Your task to perform on an android device: Go to Amazon Image 0: 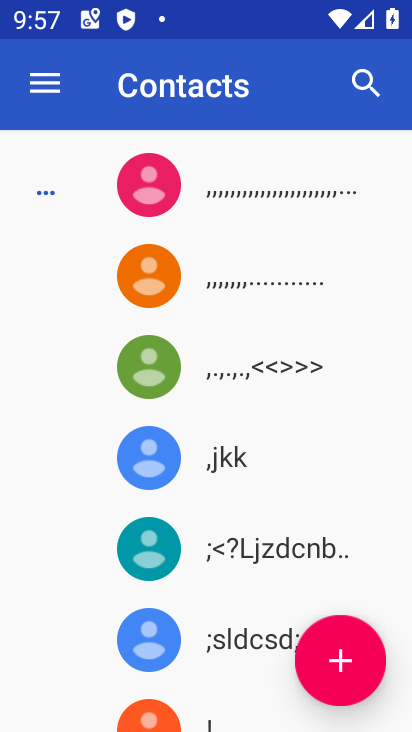
Step 0: press home button
Your task to perform on an android device: Go to Amazon Image 1: 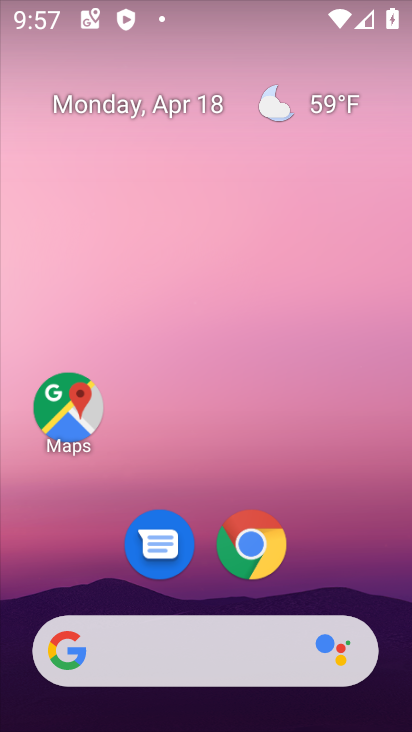
Step 1: drag from (301, 432) to (352, 139)
Your task to perform on an android device: Go to Amazon Image 2: 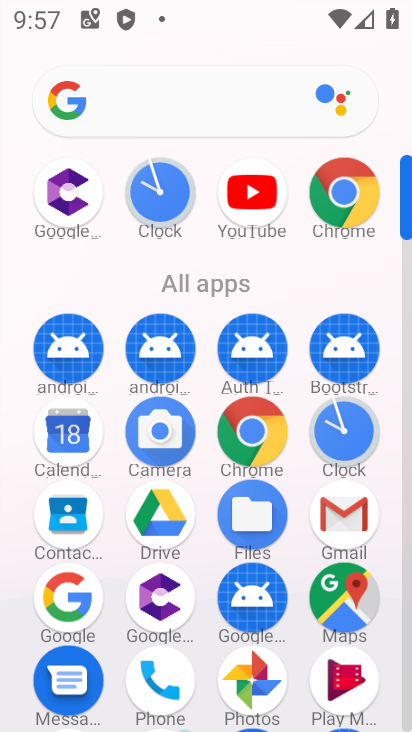
Step 2: click (227, 424)
Your task to perform on an android device: Go to Amazon Image 3: 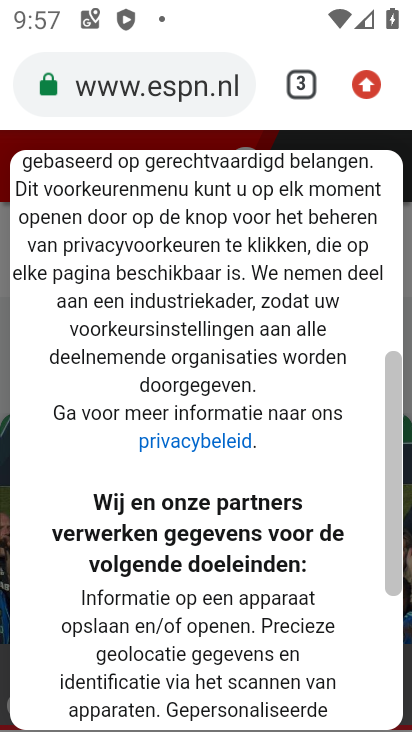
Step 3: click (388, 88)
Your task to perform on an android device: Go to Amazon Image 4: 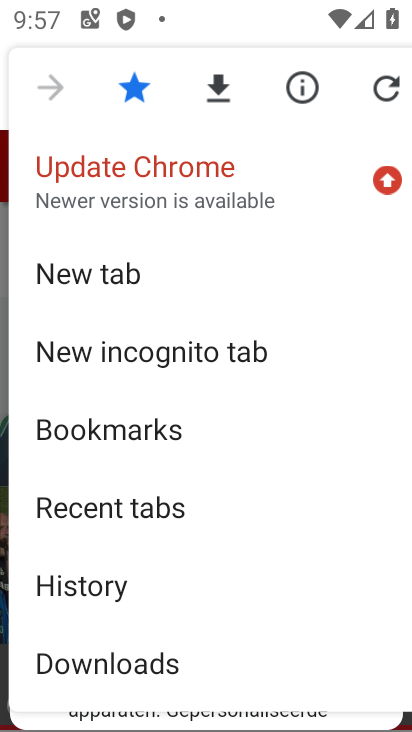
Step 4: click (135, 274)
Your task to perform on an android device: Go to Amazon Image 5: 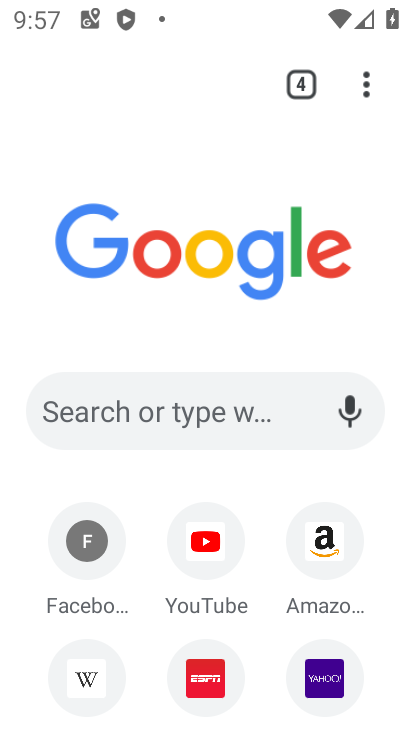
Step 5: click (314, 529)
Your task to perform on an android device: Go to Amazon Image 6: 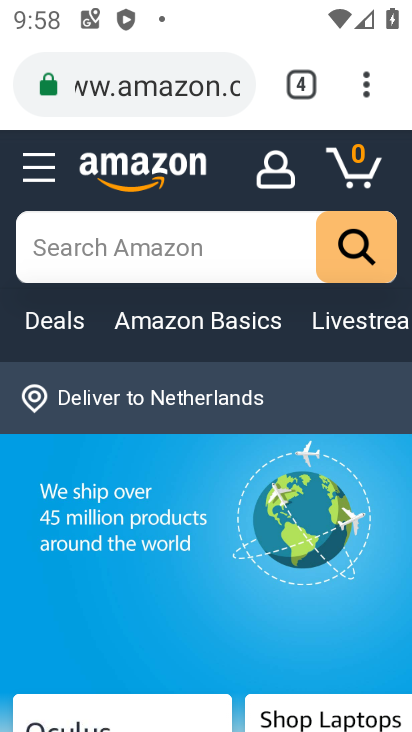
Step 6: task complete